Your task to perform on an android device: turn off translation in the chrome app Image 0: 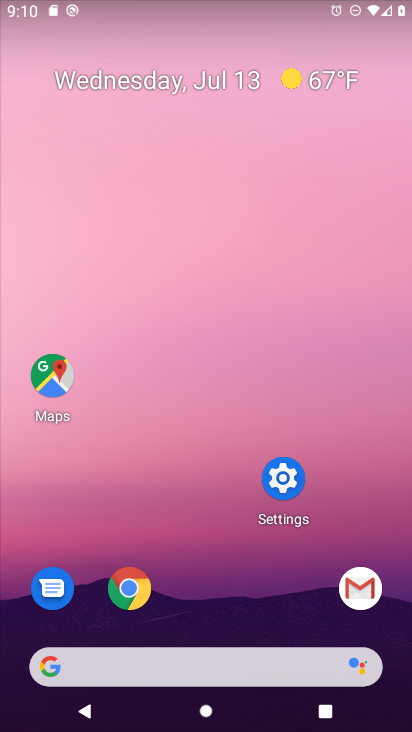
Step 0: click (144, 593)
Your task to perform on an android device: turn off translation in the chrome app Image 1: 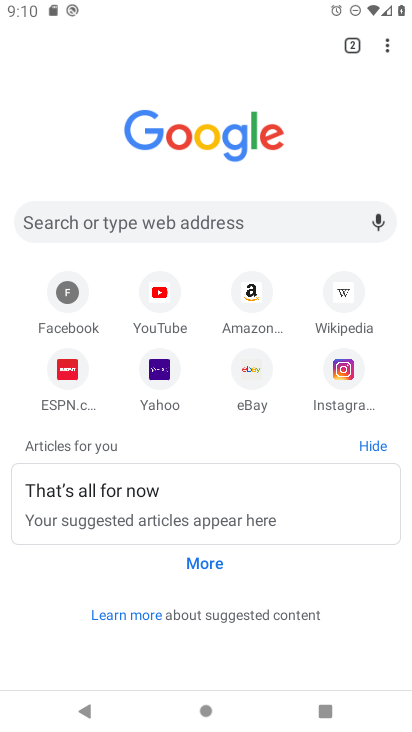
Step 1: click (388, 49)
Your task to perform on an android device: turn off translation in the chrome app Image 2: 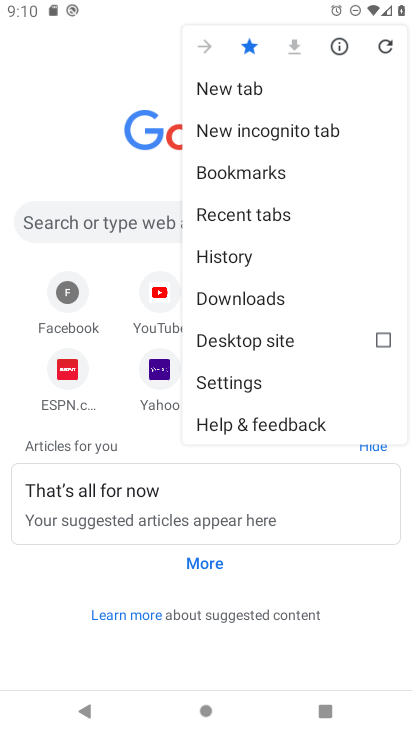
Step 2: click (236, 391)
Your task to perform on an android device: turn off translation in the chrome app Image 3: 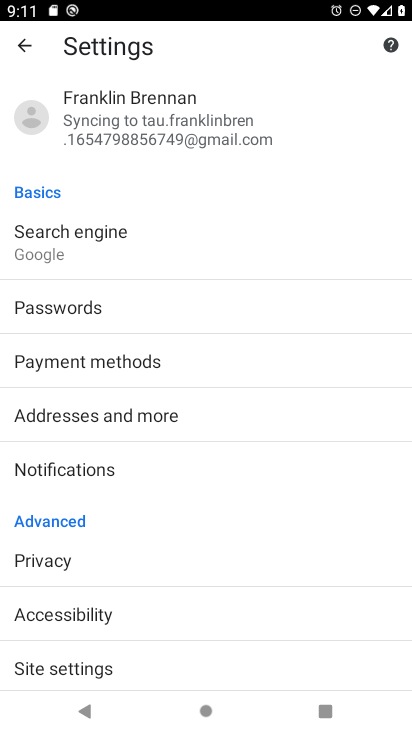
Step 3: drag from (144, 580) to (159, 435)
Your task to perform on an android device: turn off translation in the chrome app Image 4: 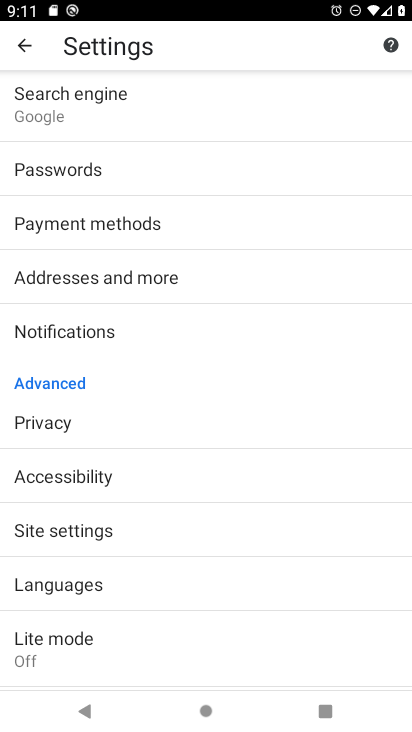
Step 4: click (62, 585)
Your task to perform on an android device: turn off translation in the chrome app Image 5: 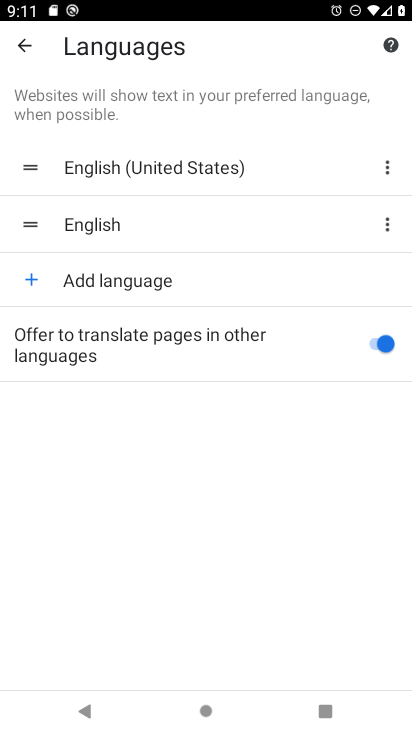
Step 5: click (386, 354)
Your task to perform on an android device: turn off translation in the chrome app Image 6: 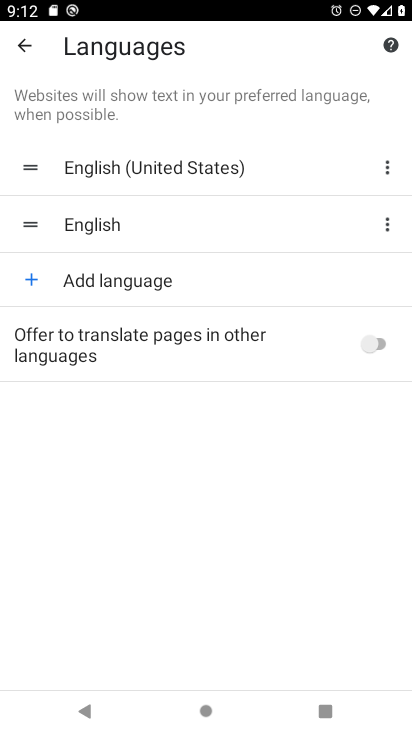
Step 6: task complete